Your task to perform on an android device: Open Maps and search for coffee Image 0: 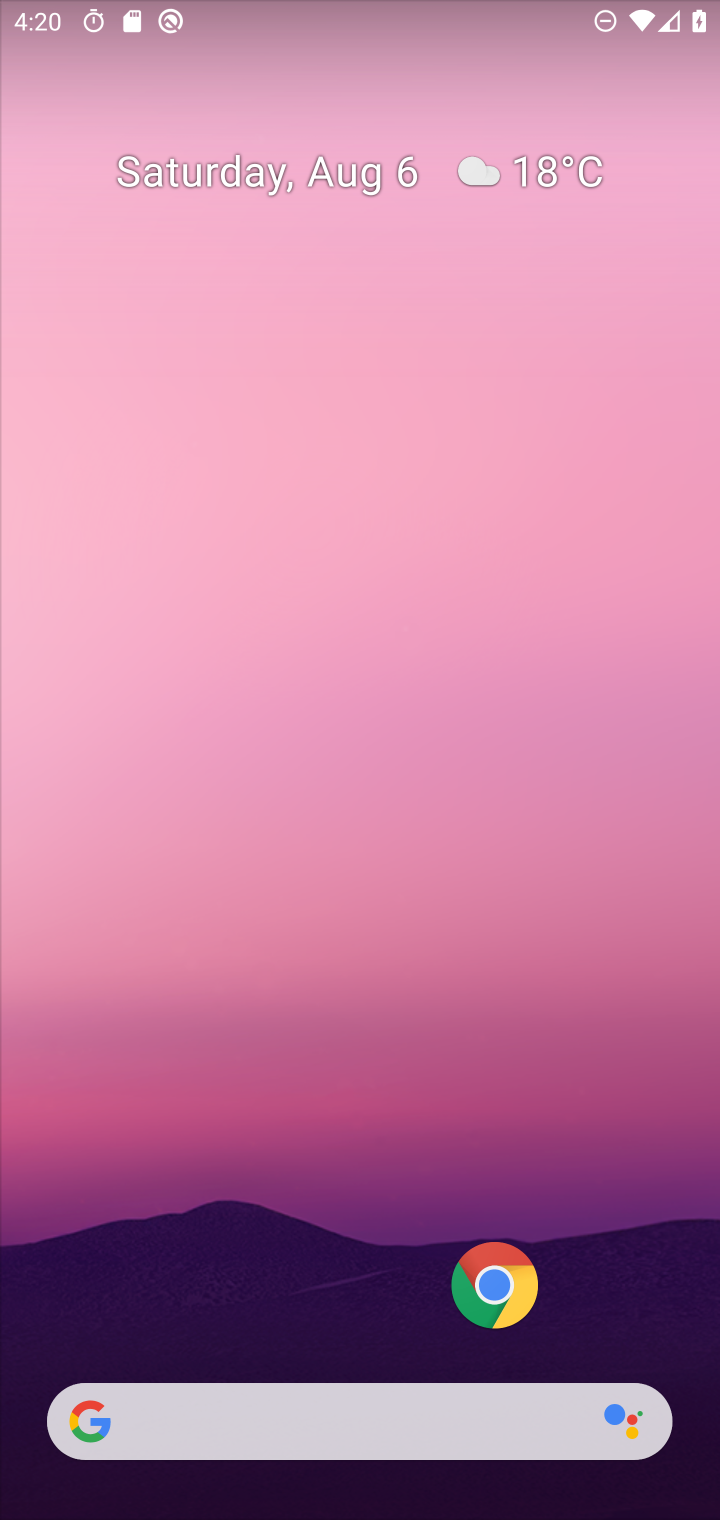
Step 0: press home button
Your task to perform on an android device: Open Maps and search for coffee Image 1: 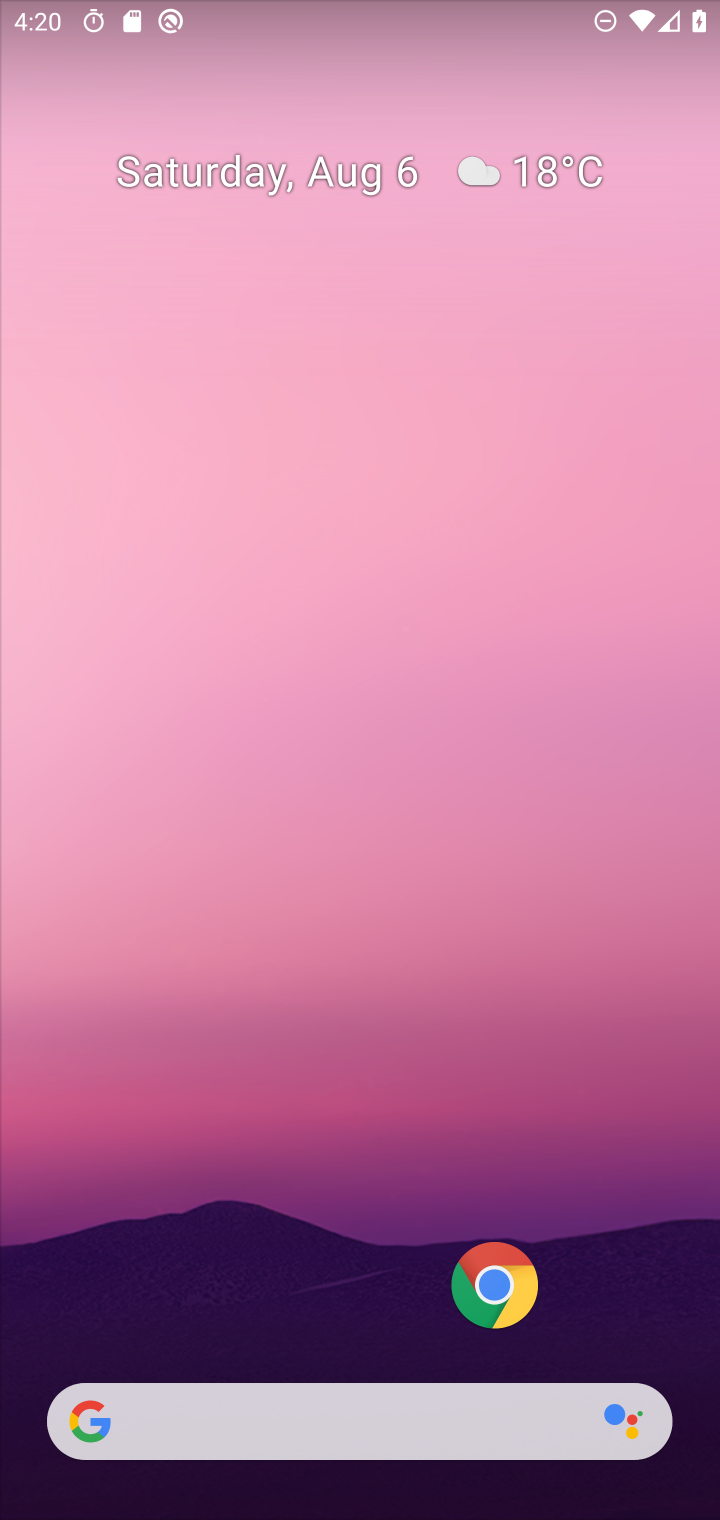
Step 1: drag from (332, 1335) to (356, 283)
Your task to perform on an android device: Open Maps and search for coffee Image 2: 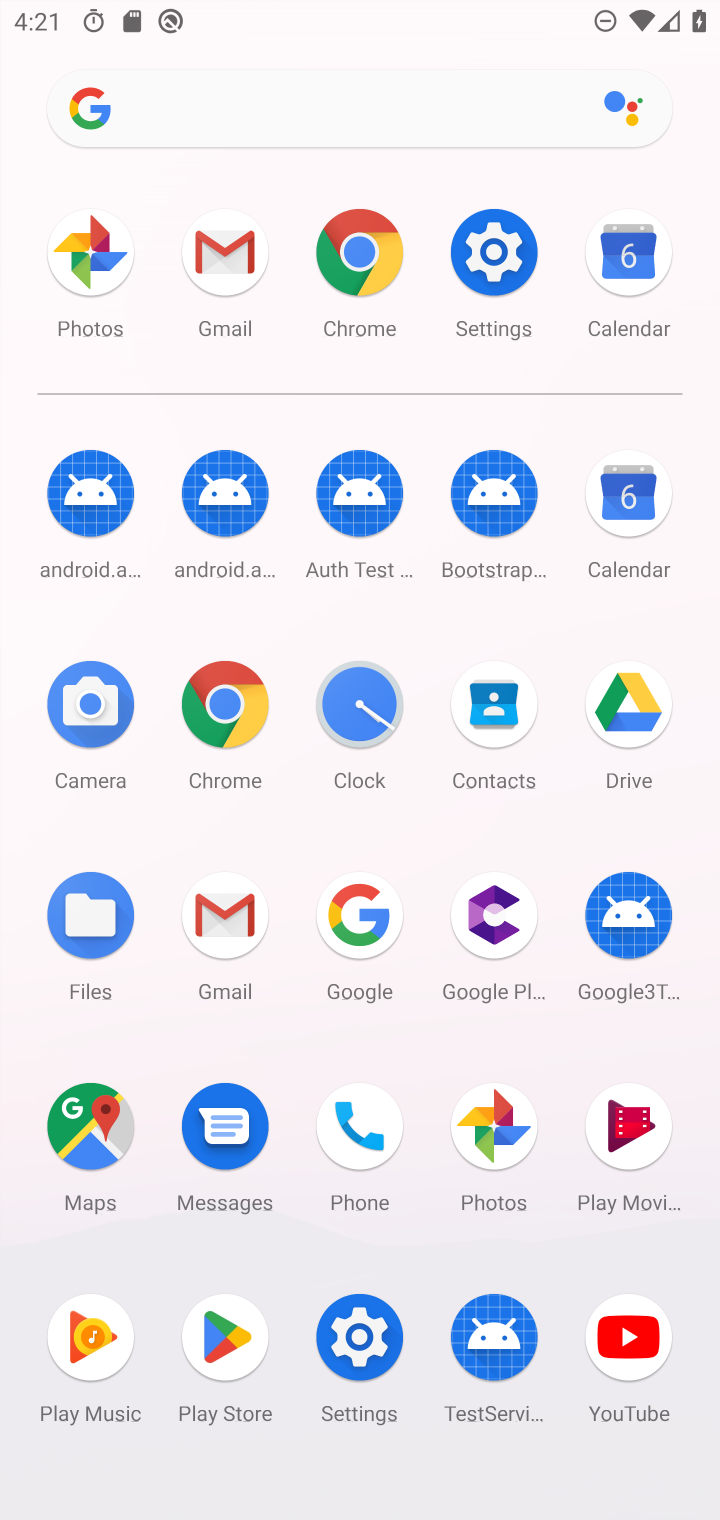
Step 2: click (94, 1111)
Your task to perform on an android device: Open Maps and search for coffee Image 3: 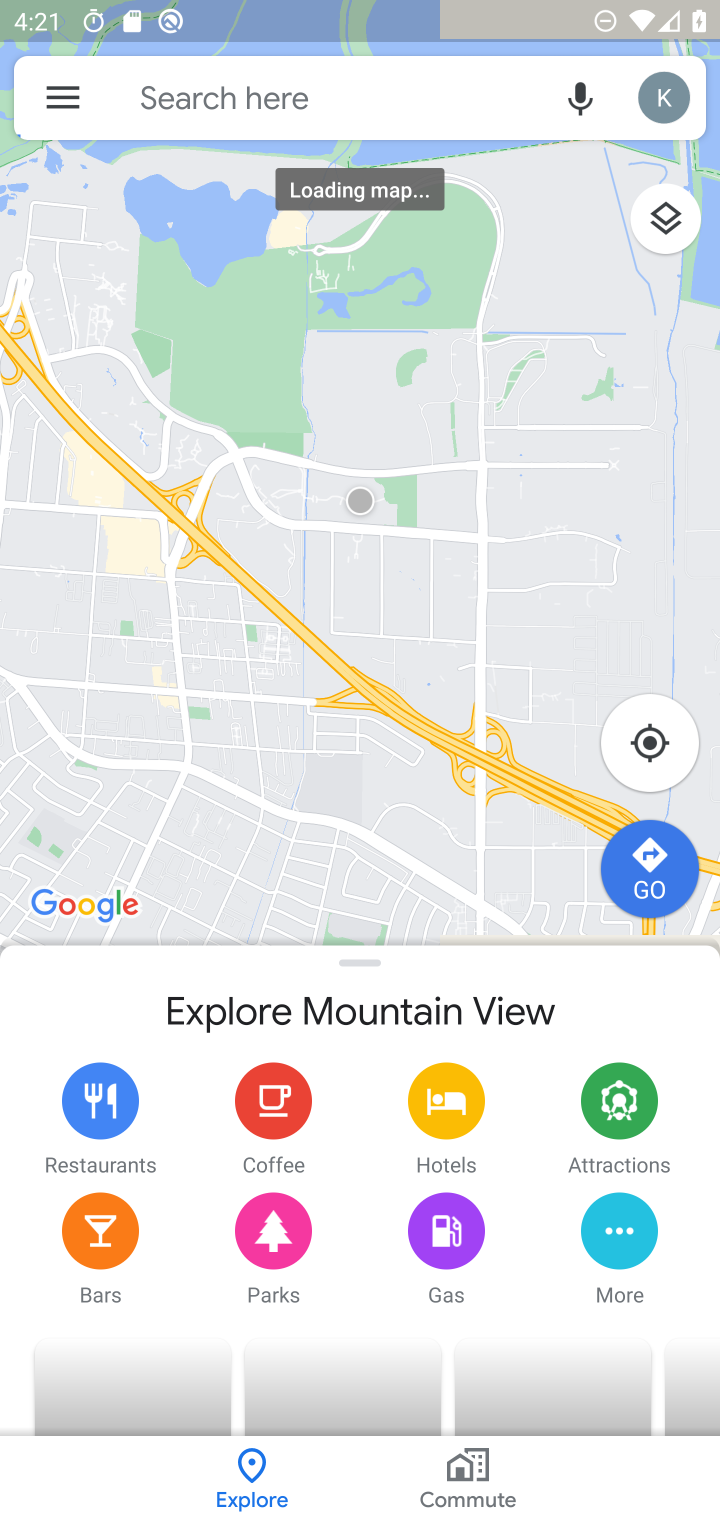
Step 3: click (178, 93)
Your task to perform on an android device: Open Maps and search for coffee Image 4: 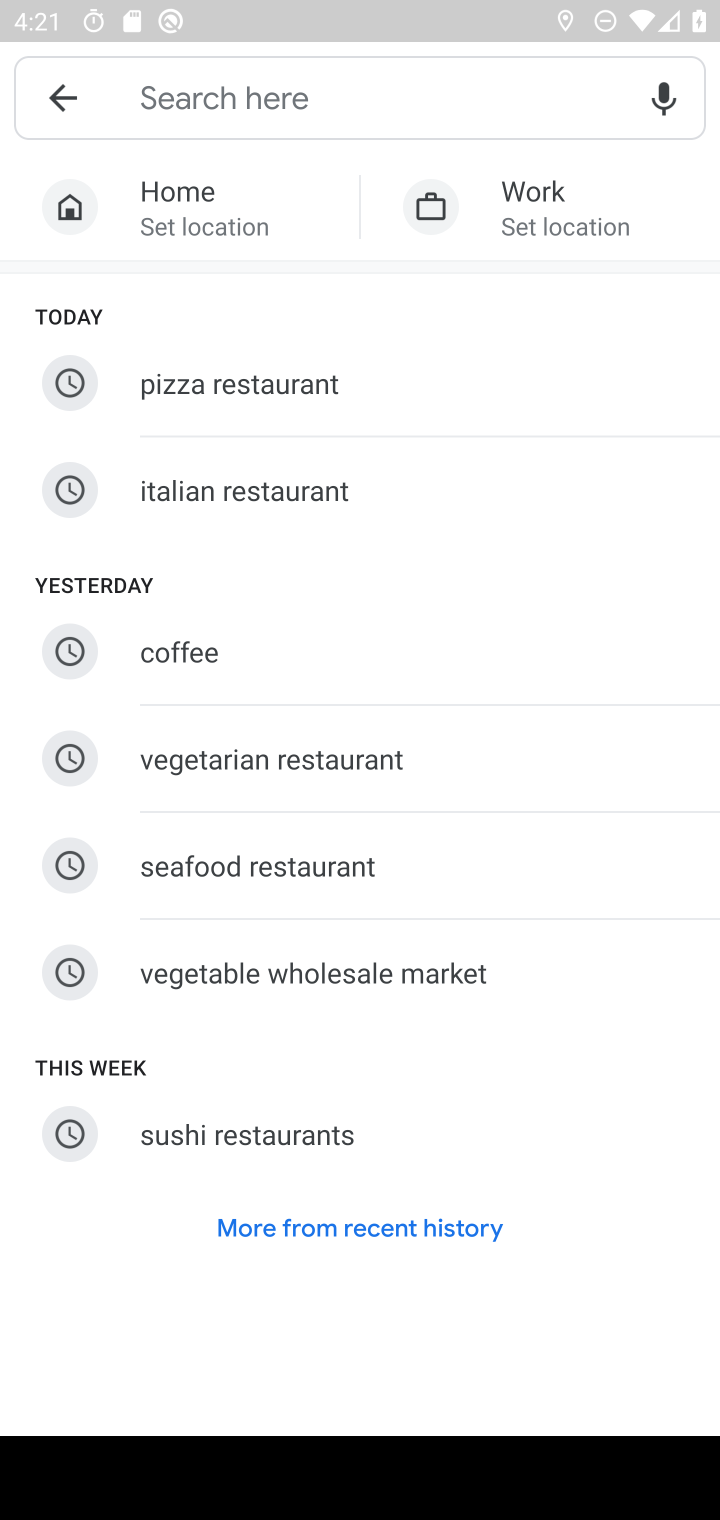
Step 4: click (241, 667)
Your task to perform on an android device: Open Maps and search for coffee Image 5: 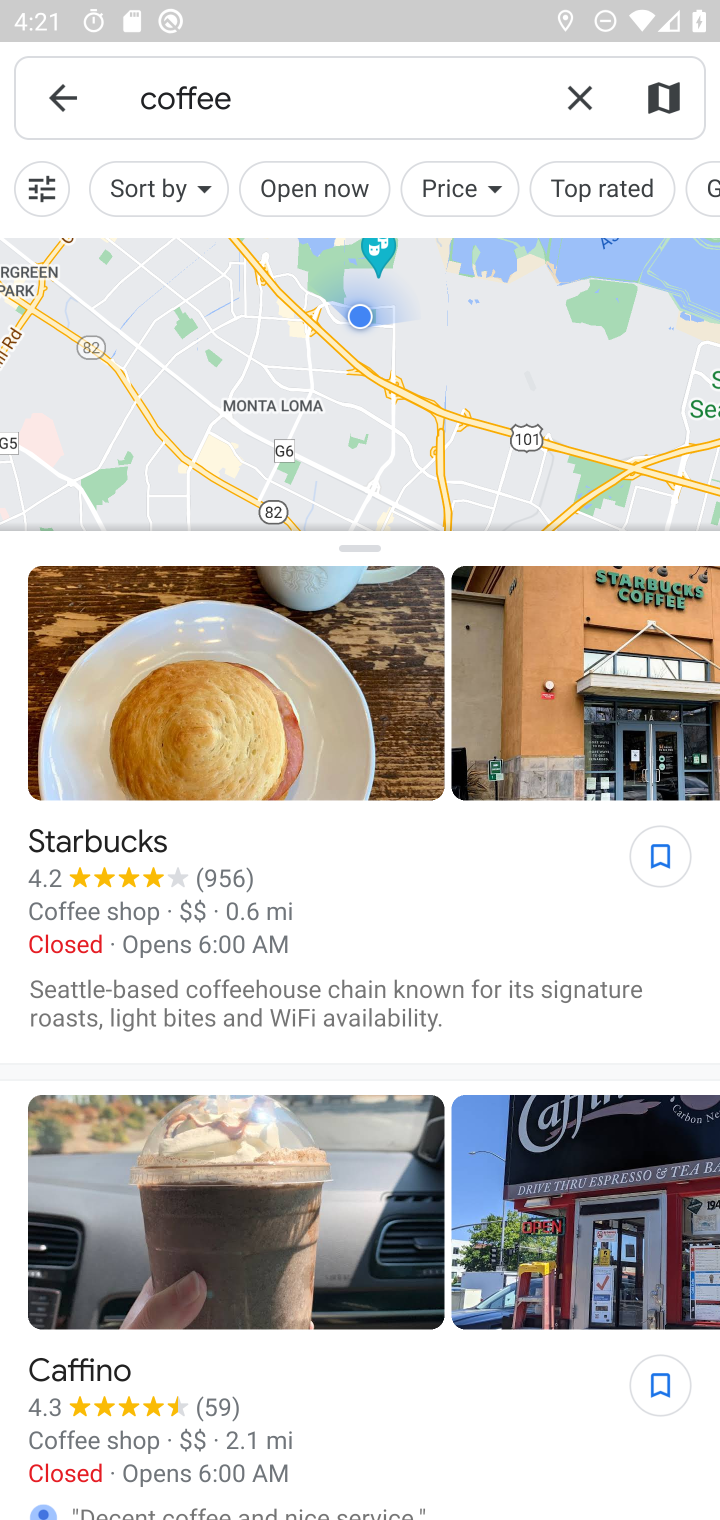
Step 5: drag from (401, 1328) to (408, 447)
Your task to perform on an android device: Open Maps and search for coffee Image 6: 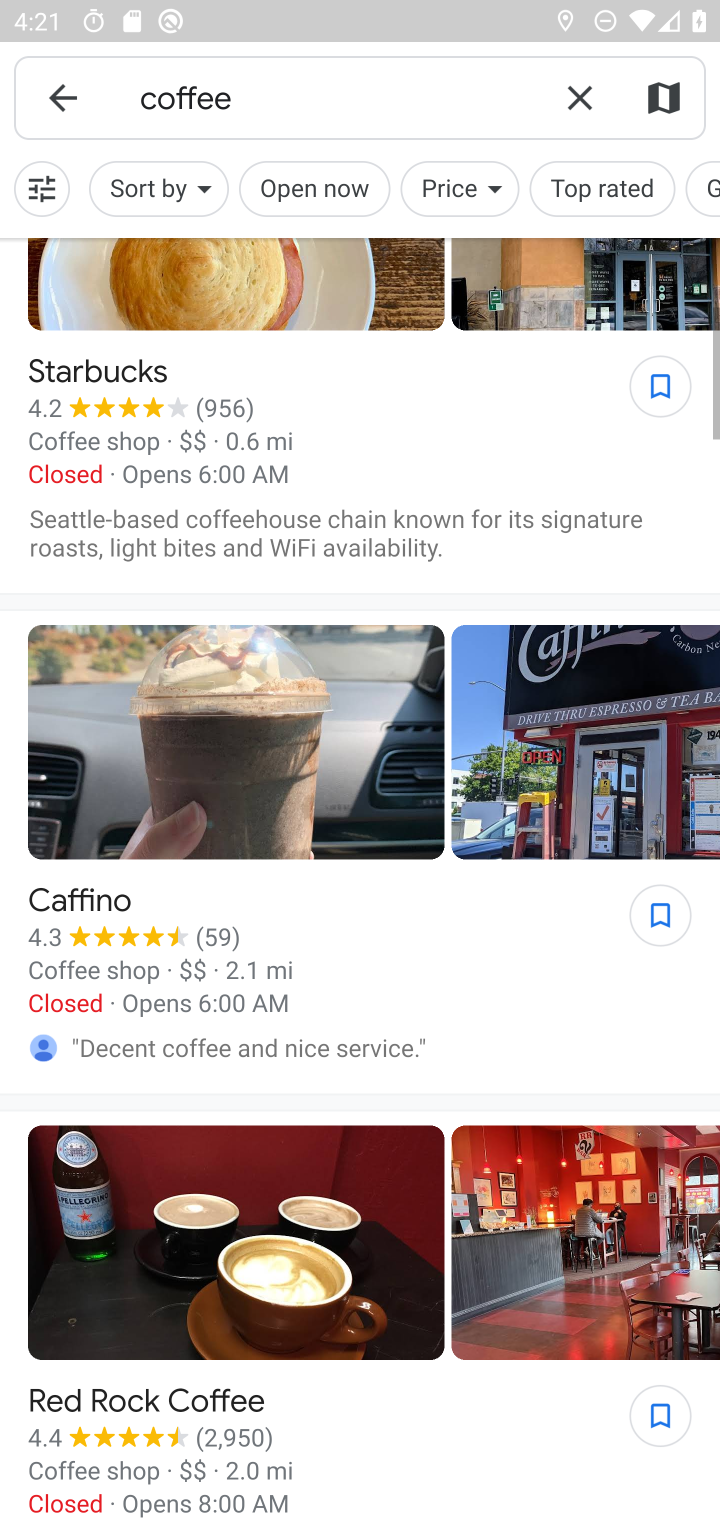
Step 6: drag from (388, 1083) to (408, 534)
Your task to perform on an android device: Open Maps and search for coffee Image 7: 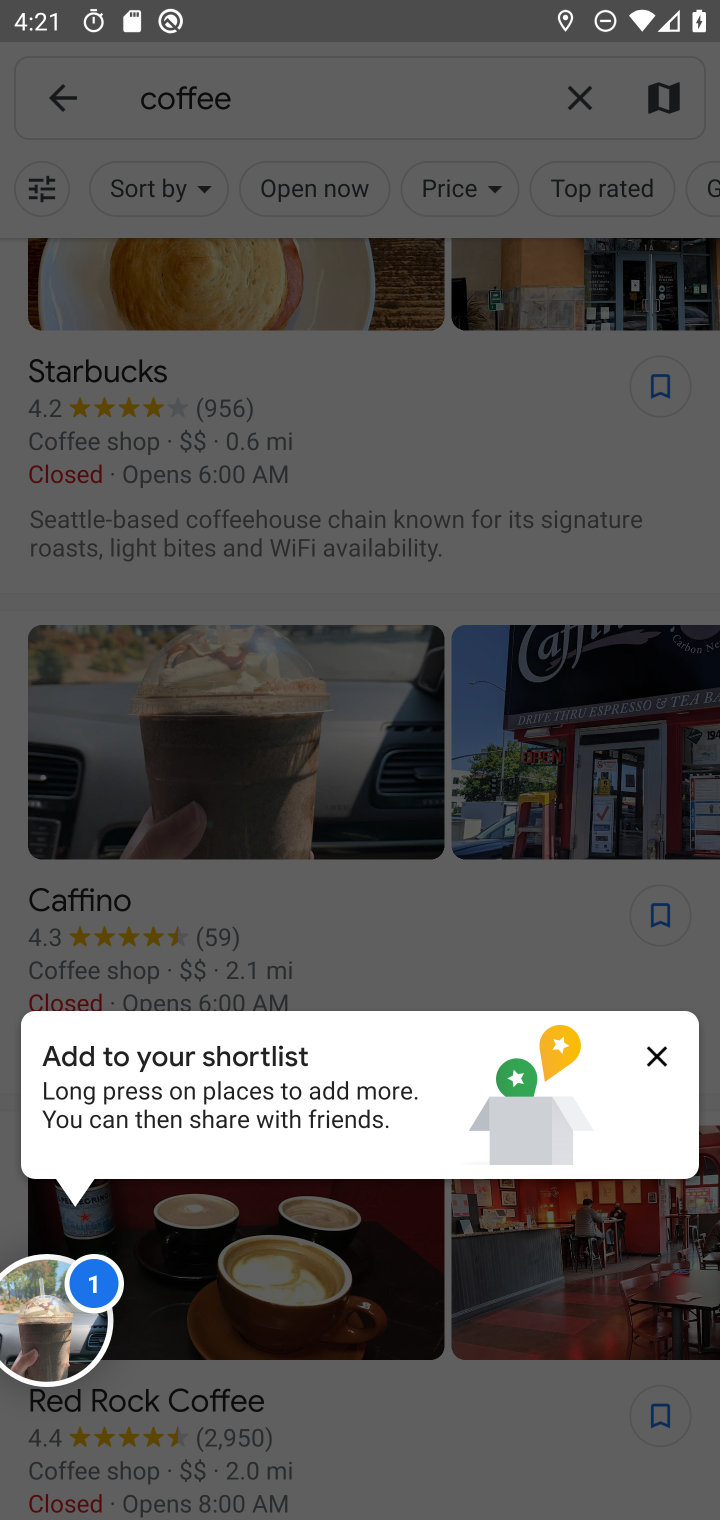
Step 7: click (651, 1052)
Your task to perform on an android device: Open Maps and search for coffee Image 8: 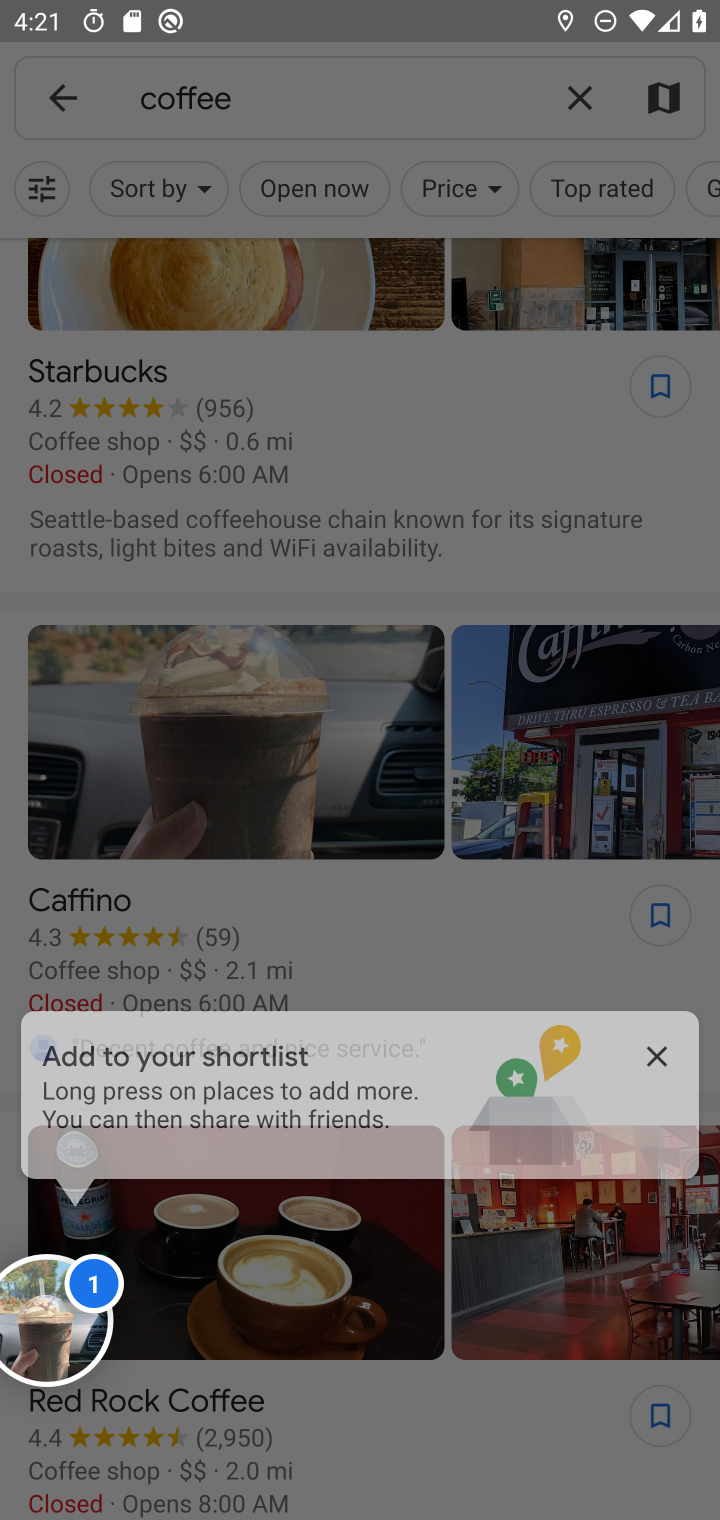
Step 8: task complete